Your task to perform on an android device: check android version Image 0: 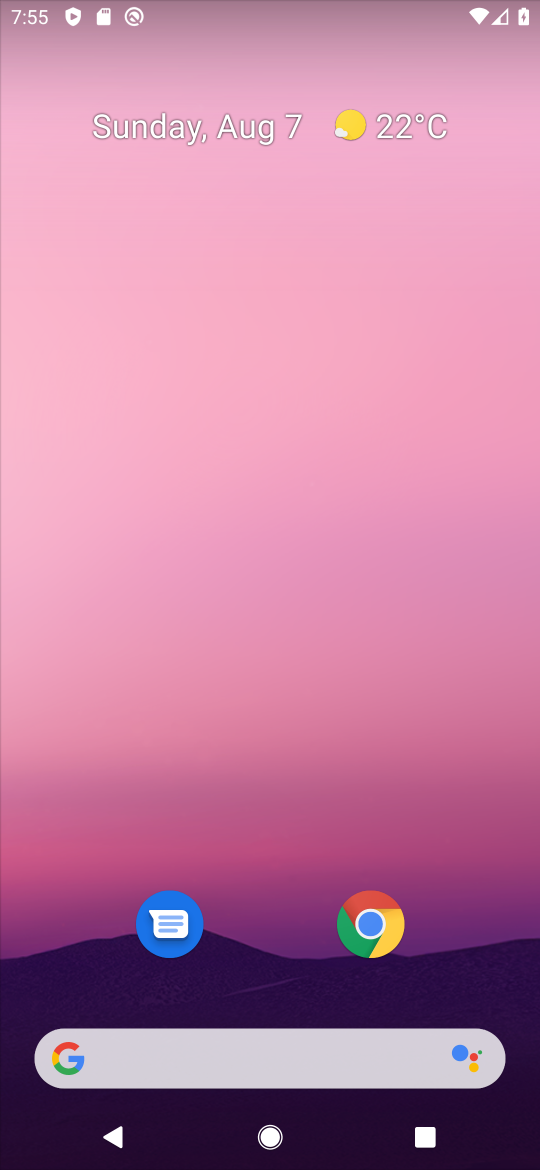
Step 0: drag from (276, 898) to (269, 0)
Your task to perform on an android device: check android version Image 1: 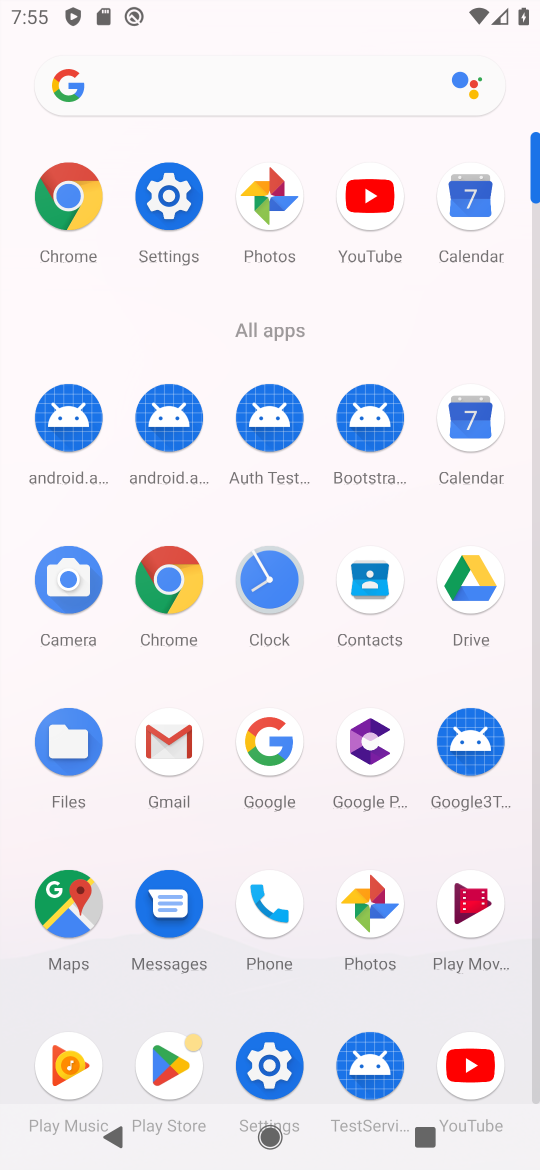
Step 1: click (182, 201)
Your task to perform on an android device: check android version Image 2: 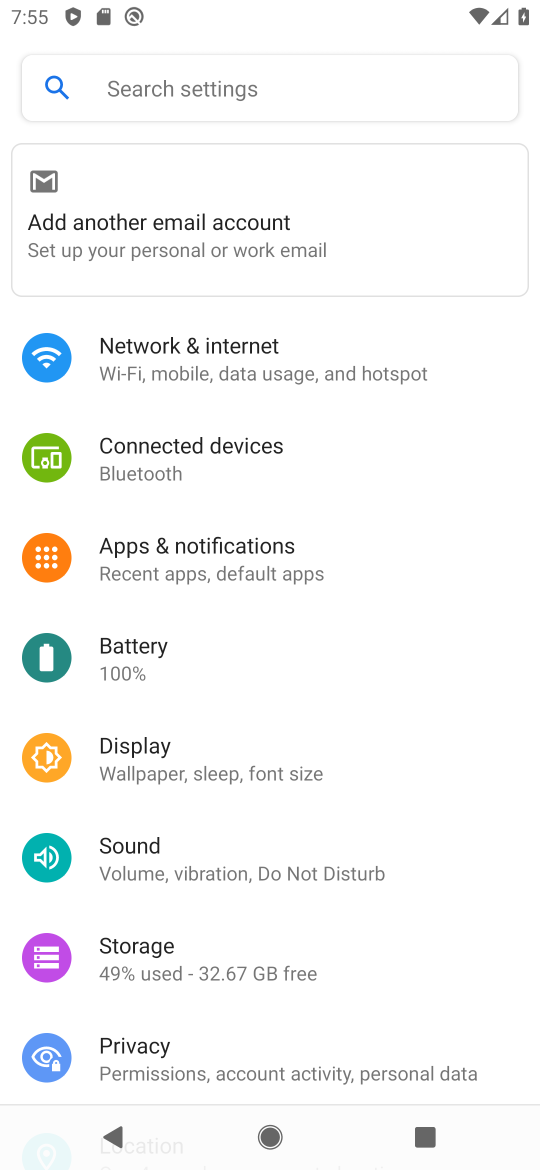
Step 2: drag from (299, 1027) to (353, 8)
Your task to perform on an android device: check android version Image 3: 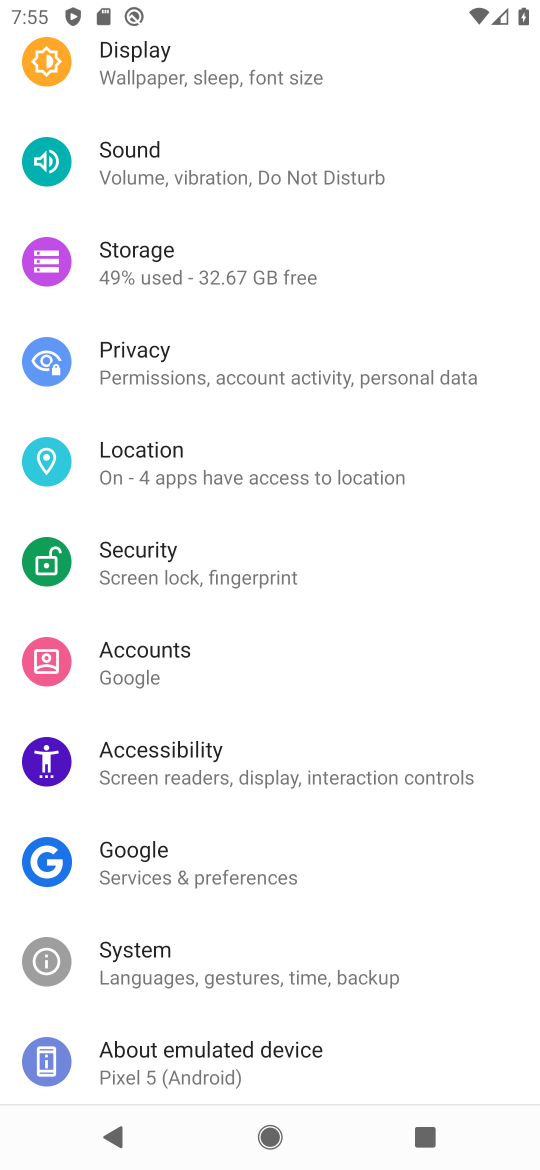
Step 3: click (233, 1054)
Your task to perform on an android device: check android version Image 4: 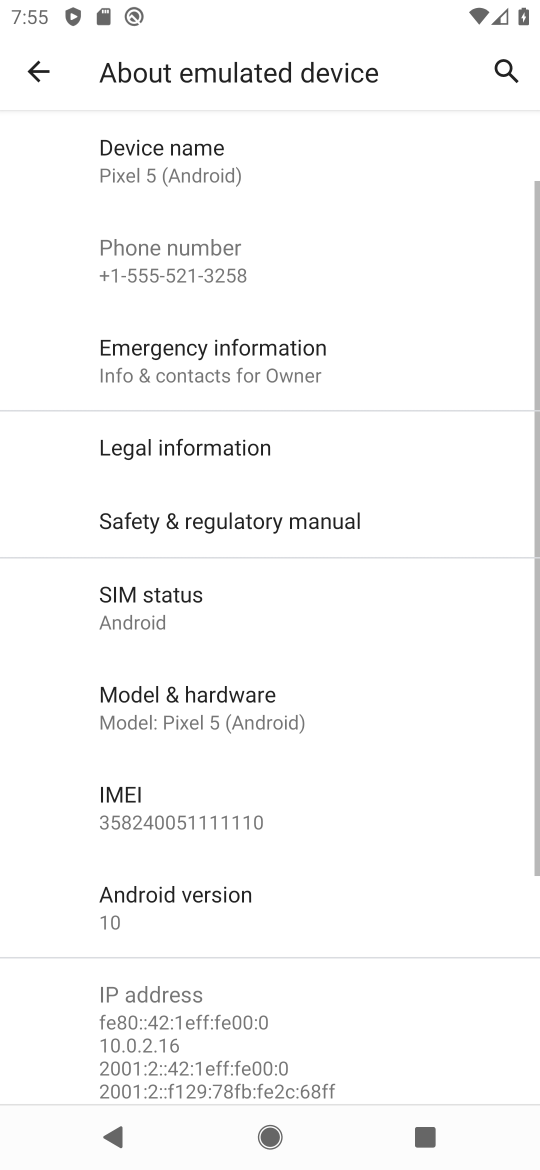
Step 4: click (244, 941)
Your task to perform on an android device: check android version Image 5: 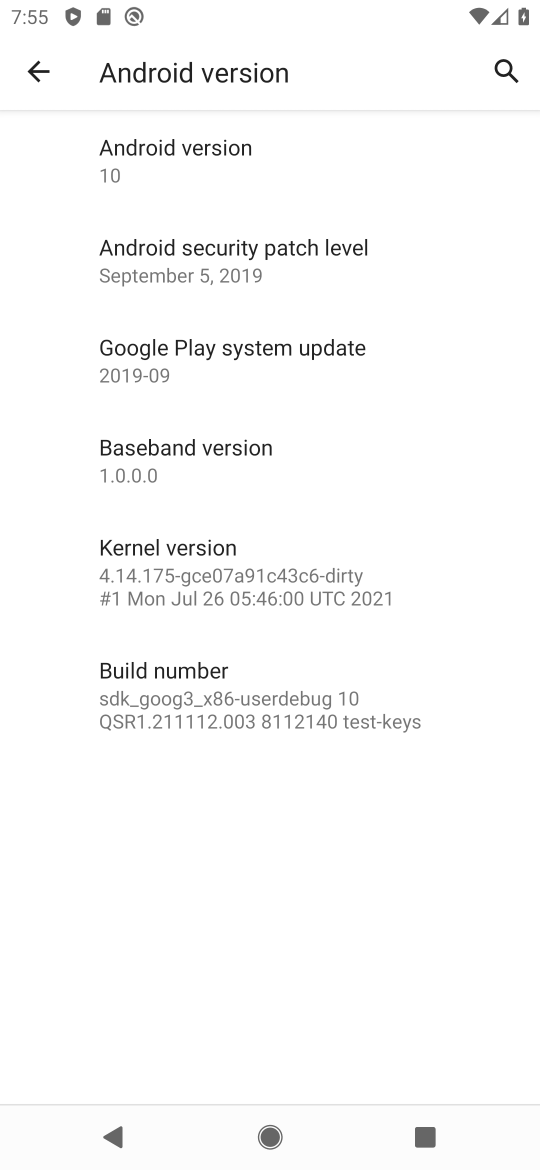
Step 5: task complete